Your task to perform on an android device: check android version Image 0: 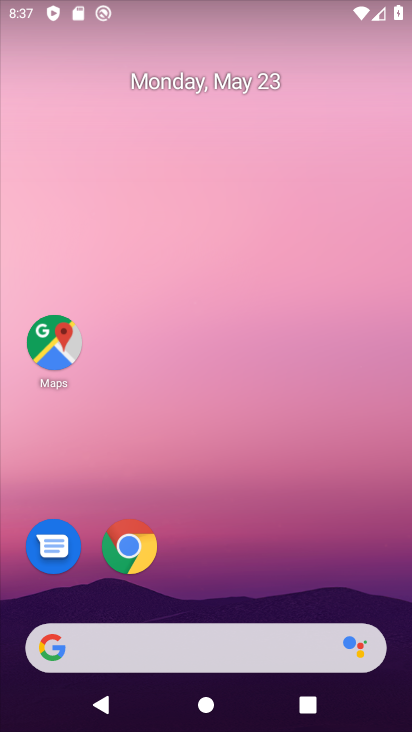
Step 0: click (283, 499)
Your task to perform on an android device: check android version Image 1: 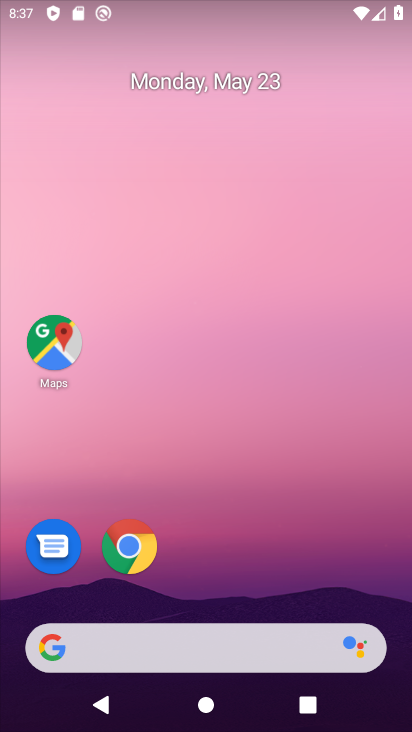
Step 1: drag from (257, 542) to (281, 196)
Your task to perform on an android device: check android version Image 2: 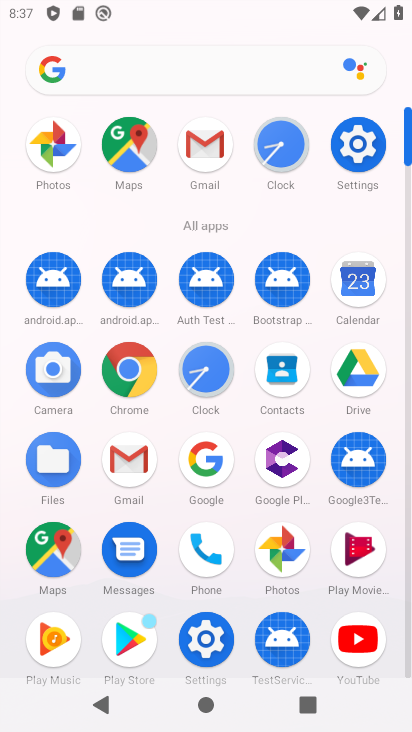
Step 2: click (349, 143)
Your task to perform on an android device: check android version Image 3: 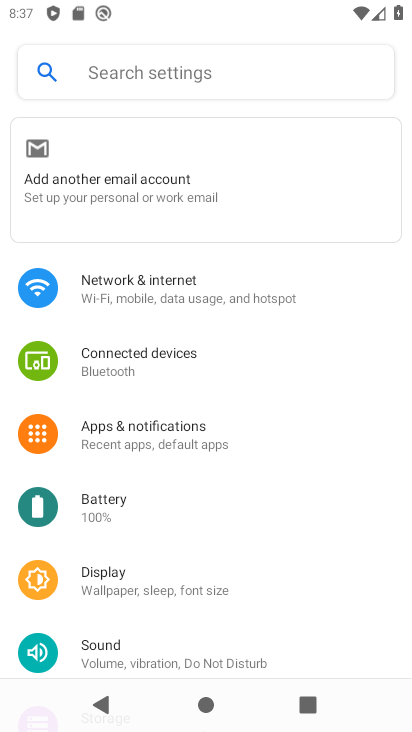
Step 3: drag from (211, 516) to (291, 165)
Your task to perform on an android device: check android version Image 4: 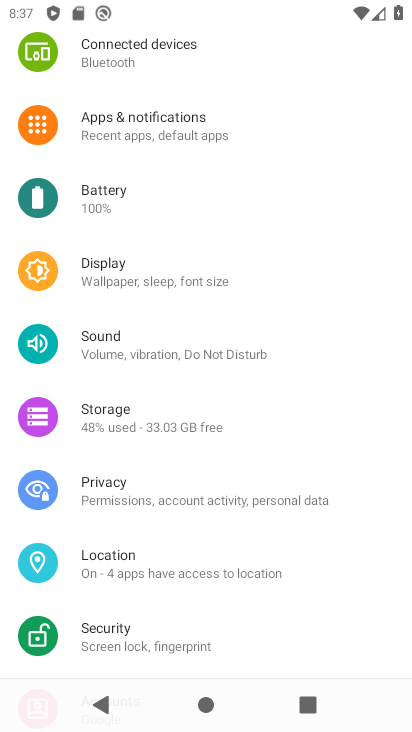
Step 4: drag from (144, 619) to (244, 293)
Your task to perform on an android device: check android version Image 5: 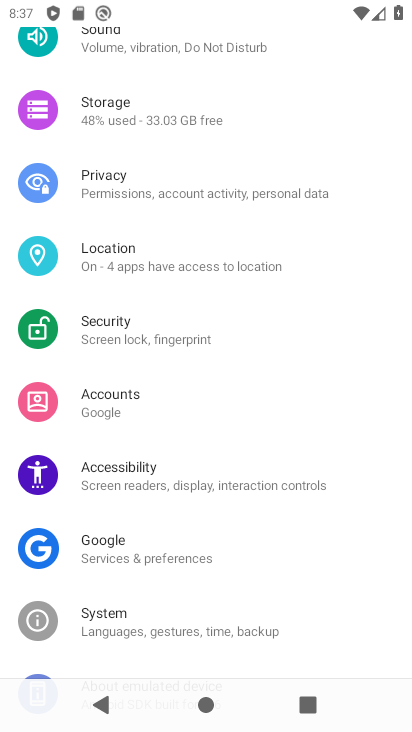
Step 5: drag from (90, 643) to (370, 273)
Your task to perform on an android device: check android version Image 6: 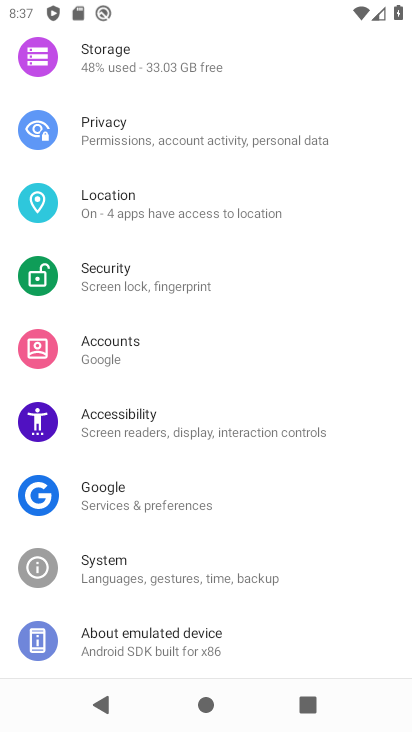
Step 6: click (174, 634)
Your task to perform on an android device: check android version Image 7: 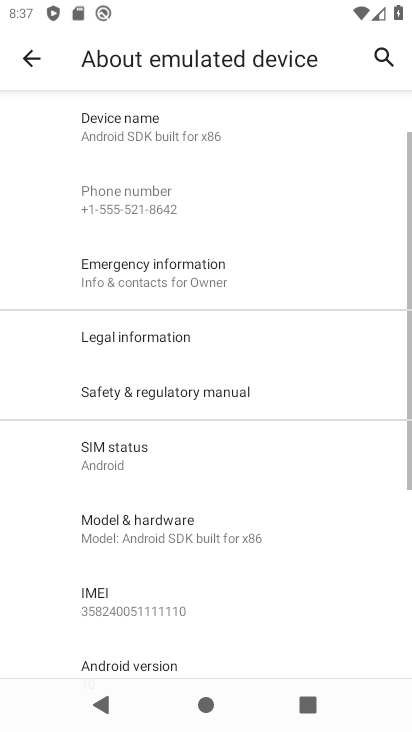
Step 7: drag from (176, 606) to (261, 165)
Your task to perform on an android device: check android version Image 8: 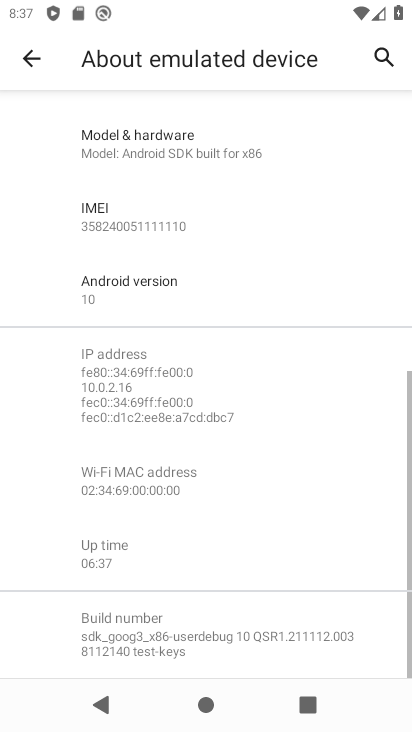
Step 8: drag from (210, 554) to (302, 225)
Your task to perform on an android device: check android version Image 9: 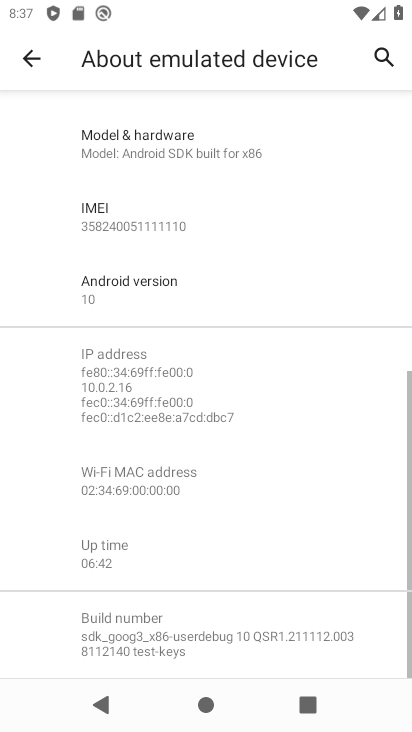
Step 9: click (153, 319)
Your task to perform on an android device: check android version Image 10: 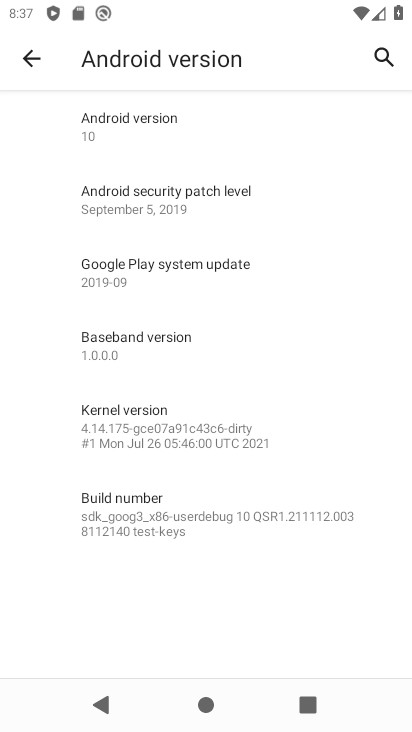
Step 10: task complete